Your task to perform on an android device: Search for seafood restaurants on Google Maps Image 0: 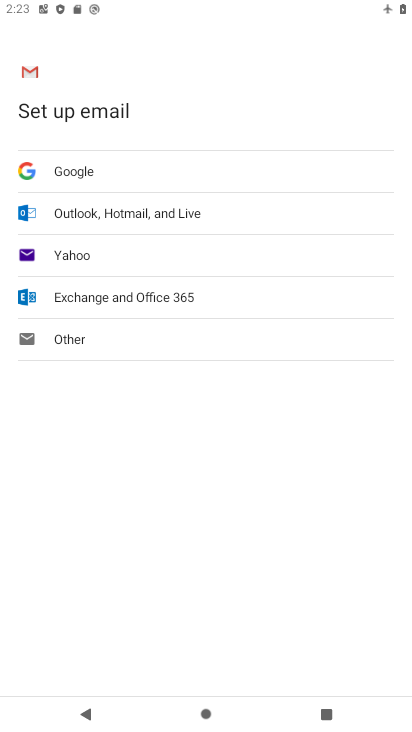
Step 0: press home button
Your task to perform on an android device: Search for seafood restaurants on Google Maps Image 1: 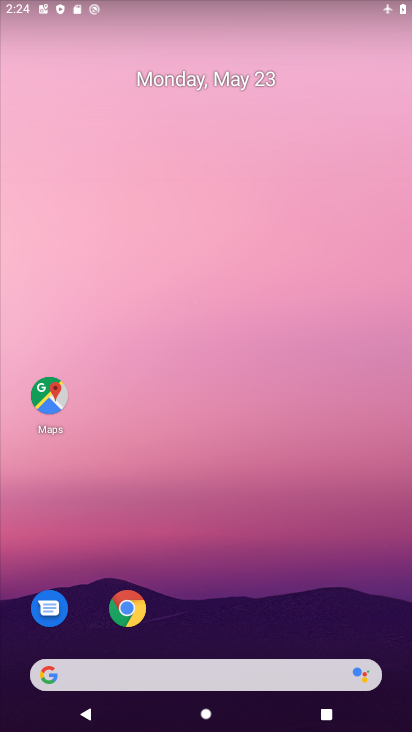
Step 1: click (46, 399)
Your task to perform on an android device: Search for seafood restaurants on Google Maps Image 2: 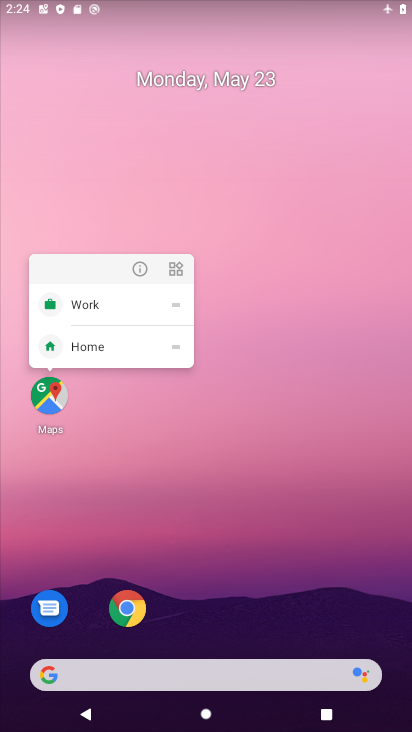
Step 2: click (50, 416)
Your task to perform on an android device: Search for seafood restaurants on Google Maps Image 3: 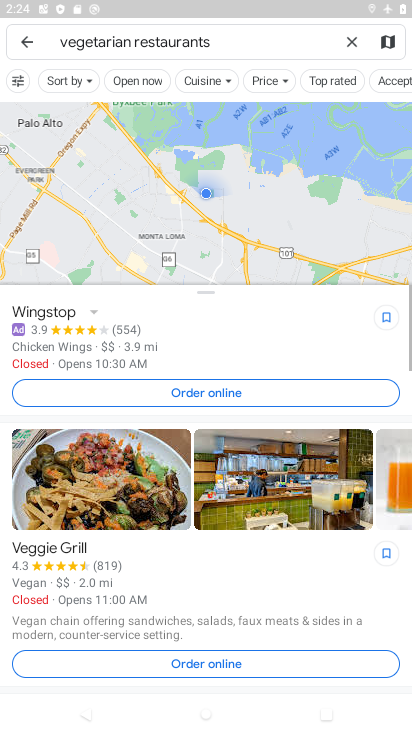
Step 3: click (348, 39)
Your task to perform on an android device: Search for seafood restaurants on Google Maps Image 4: 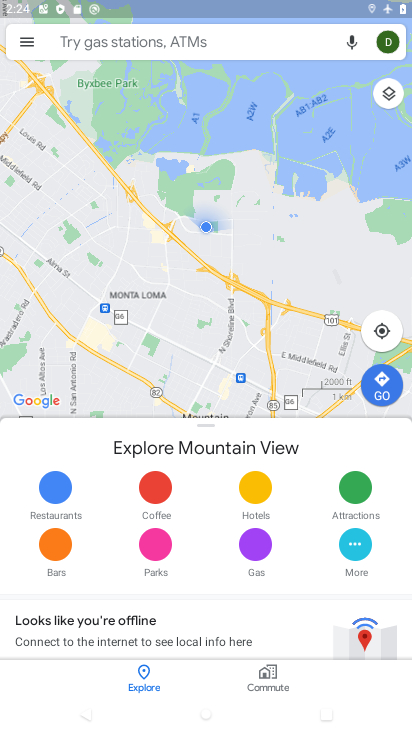
Step 4: click (219, 41)
Your task to perform on an android device: Search for seafood restaurants on Google Maps Image 5: 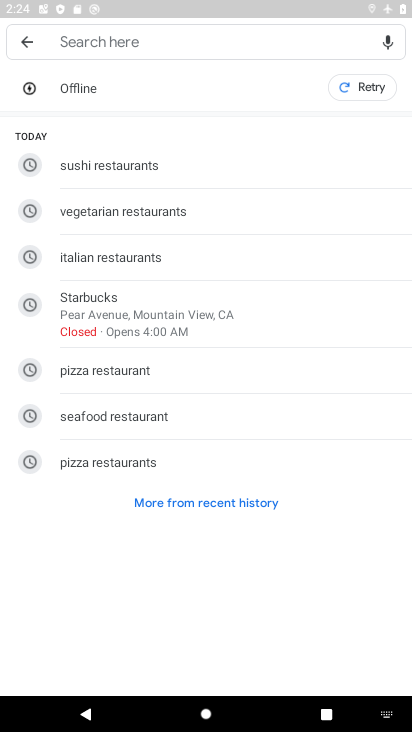
Step 5: click (97, 419)
Your task to perform on an android device: Search for seafood restaurants on Google Maps Image 6: 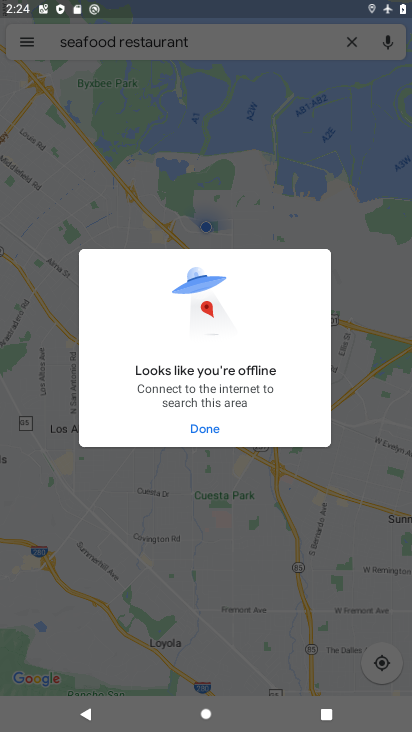
Step 6: click (189, 418)
Your task to perform on an android device: Search for seafood restaurants on Google Maps Image 7: 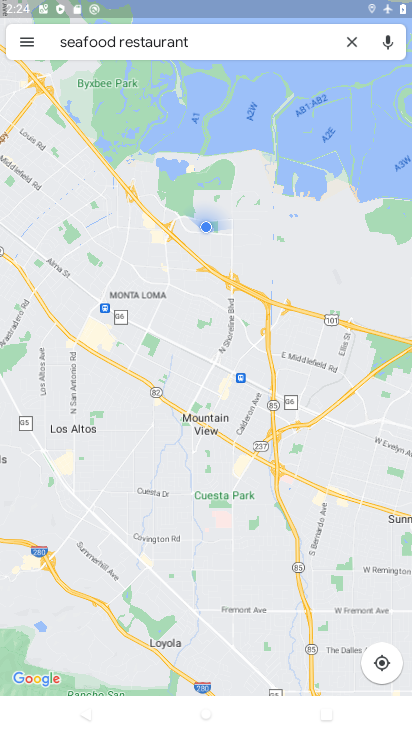
Step 7: task complete